Your task to perform on an android device: Go to display settings Image 0: 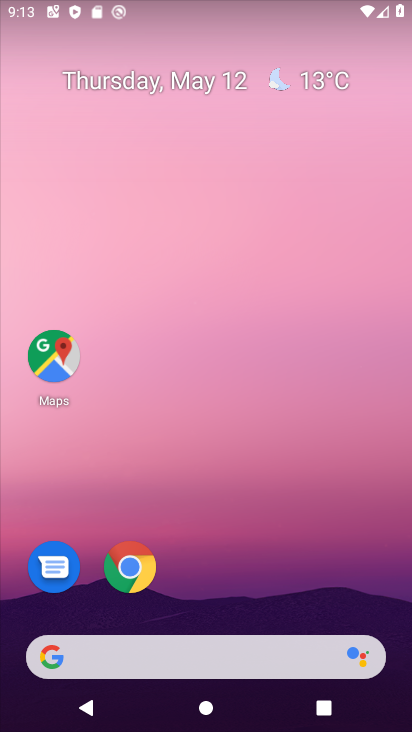
Step 0: drag from (213, 614) to (222, 69)
Your task to perform on an android device: Go to display settings Image 1: 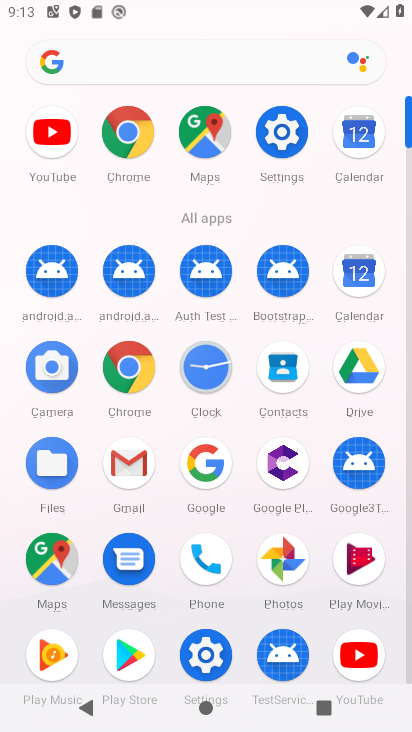
Step 1: click (279, 124)
Your task to perform on an android device: Go to display settings Image 2: 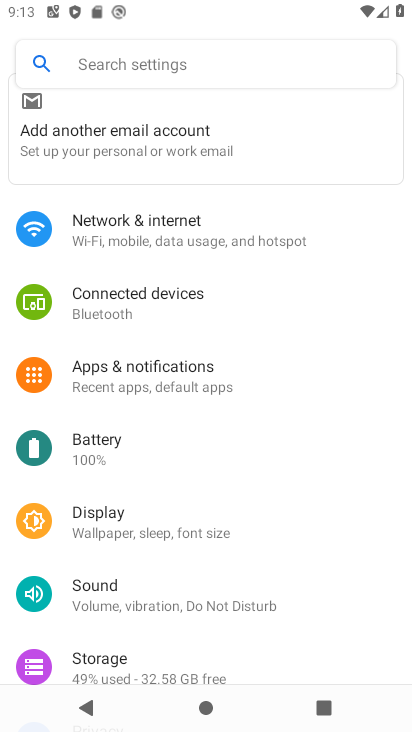
Step 2: click (133, 512)
Your task to perform on an android device: Go to display settings Image 3: 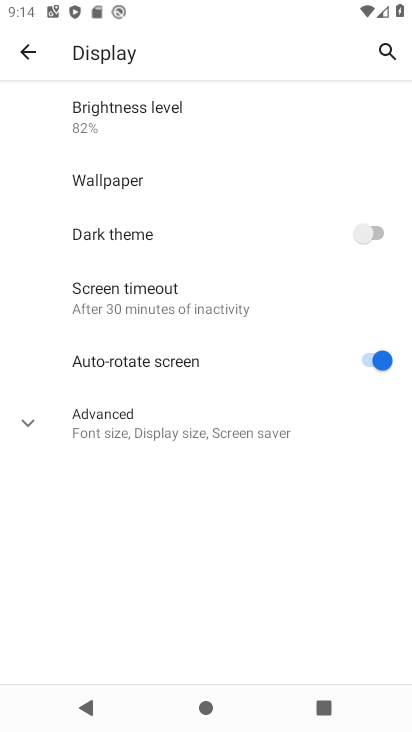
Step 3: click (28, 415)
Your task to perform on an android device: Go to display settings Image 4: 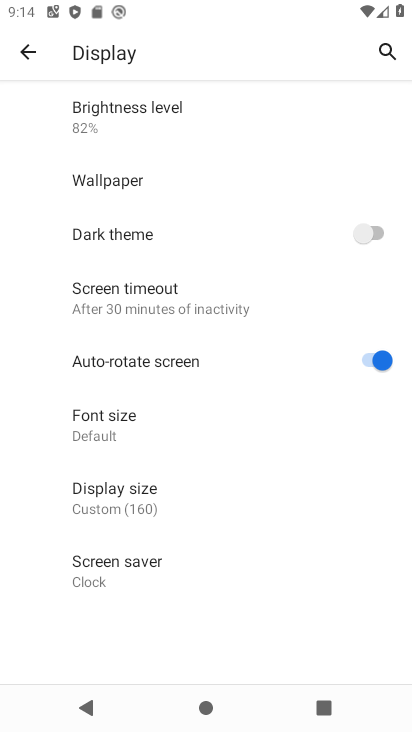
Step 4: task complete